Your task to perform on an android device: Show me popular videos on Youtube Image 0: 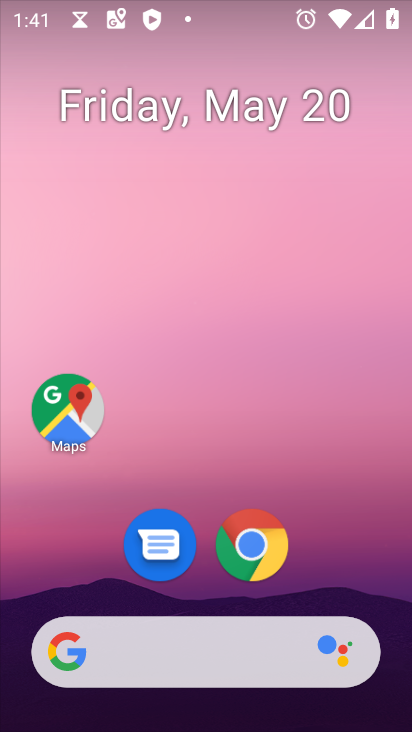
Step 0: drag from (326, 576) to (269, 318)
Your task to perform on an android device: Show me popular videos on Youtube Image 1: 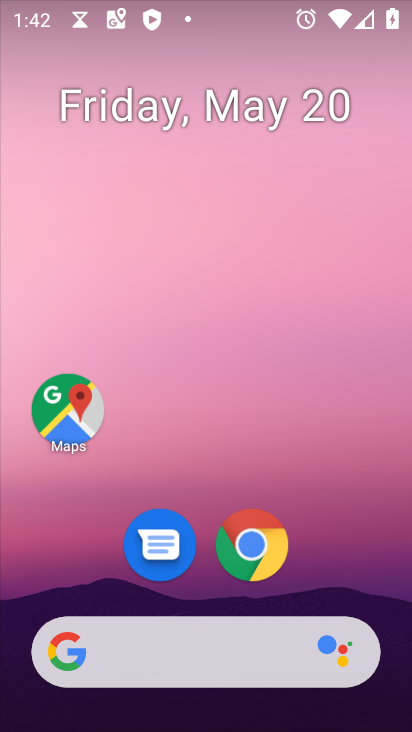
Step 1: drag from (347, 567) to (320, 174)
Your task to perform on an android device: Show me popular videos on Youtube Image 2: 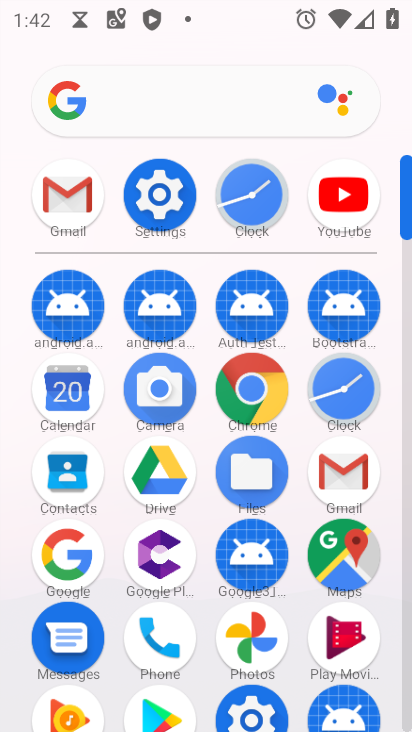
Step 2: click (338, 210)
Your task to perform on an android device: Show me popular videos on Youtube Image 3: 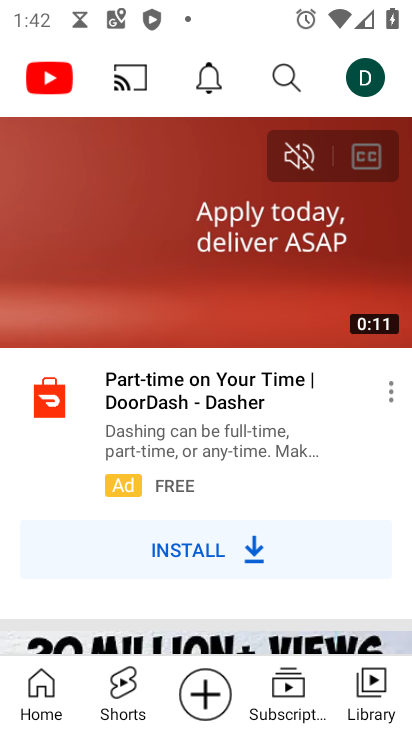
Step 3: click (288, 82)
Your task to perform on an android device: Show me popular videos on Youtube Image 4: 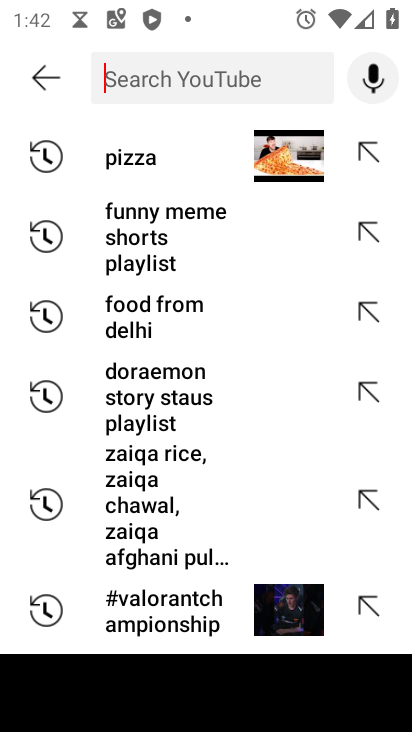
Step 4: type "popular videos"
Your task to perform on an android device: Show me popular videos on Youtube Image 5: 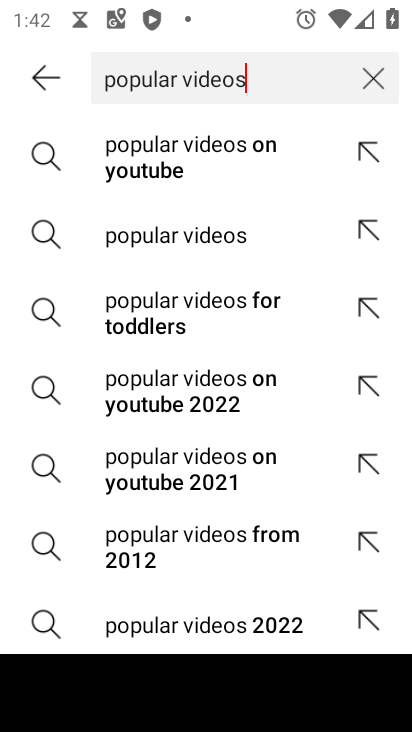
Step 5: click (190, 179)
Your task to perform on an android device: Show me popular videos on Youtube Image 6: 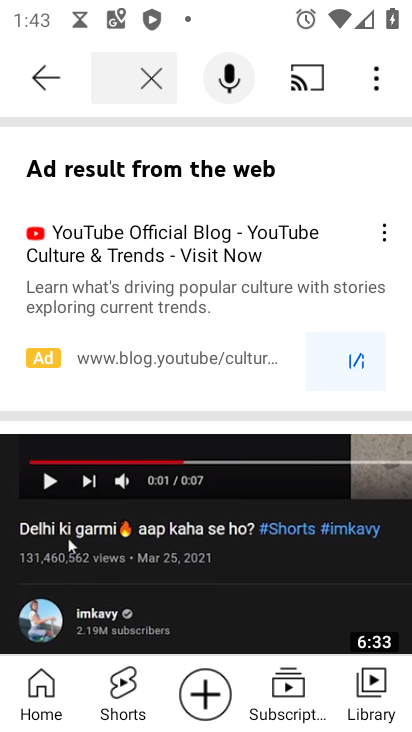
Step 6: task complete